Your task to perform on an android device: open a bookmark in the chrome app Image 0: 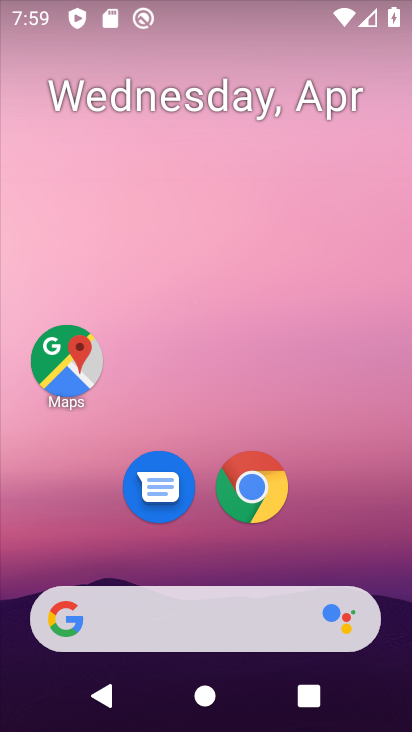
Step 0: click (271, 490)
Your task to perform on an android device: open a bookmark in the chrome app Image 1: 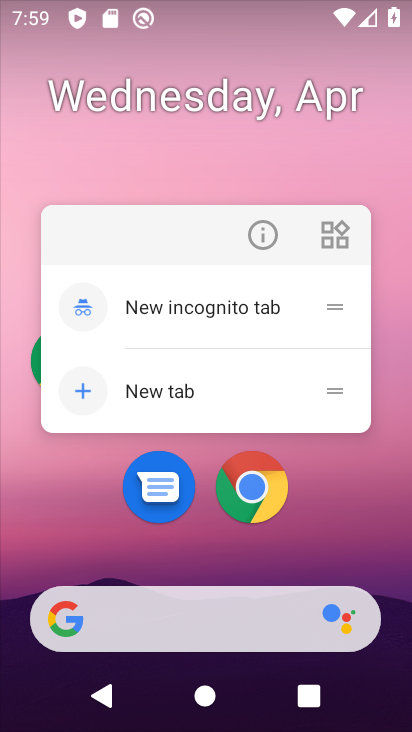
Step 1: click (260, 491)
Your task to perform on an android device: open a bookmark in the chrome app Image 2: 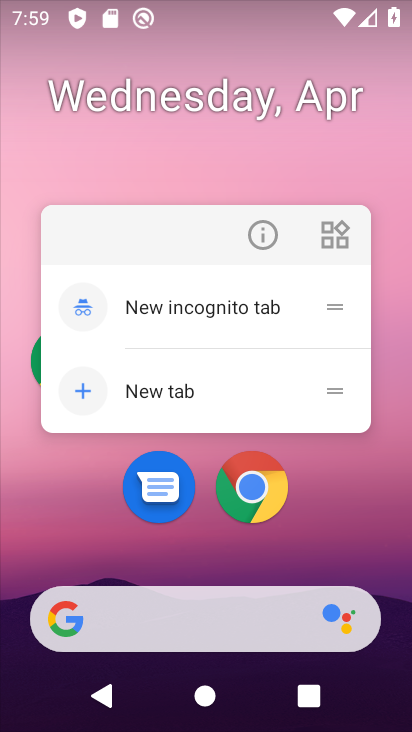
Step 2: click (252, 494)
Your task to perform on an android device: open a bookmark in the chrome app Image 3: 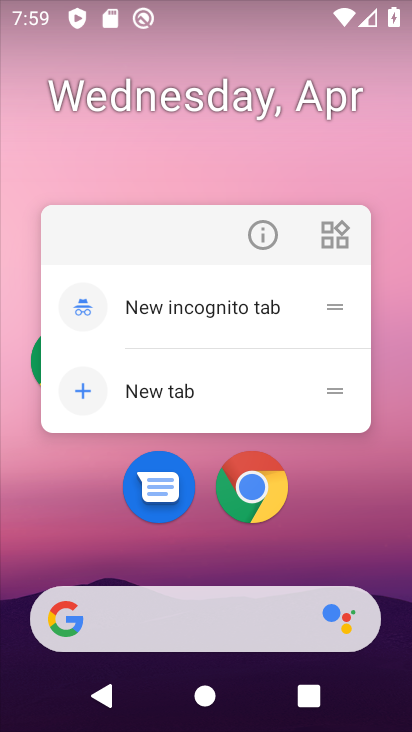
Step 3: drag from (305, 510) to (341, 73)
Your task to perform on an android device: open a bookmark in the chrome app Image 4: 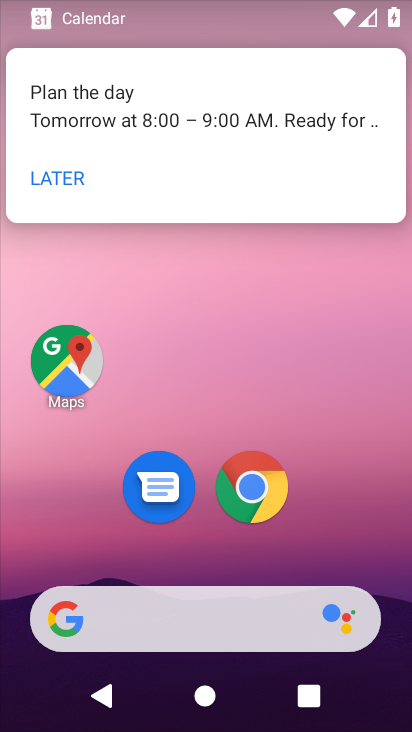
Step 4: drag from (301, 388) to (314, 103)
Your task to perform on an android device: open a bookmark in the chrome app Image 5: 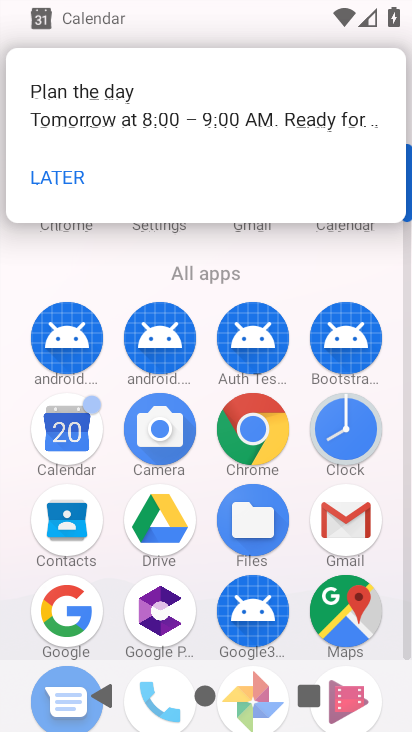
Step 5: click (244, 417)
Your task to perform on an android device: open a bookmark in the chrome app Image 6: 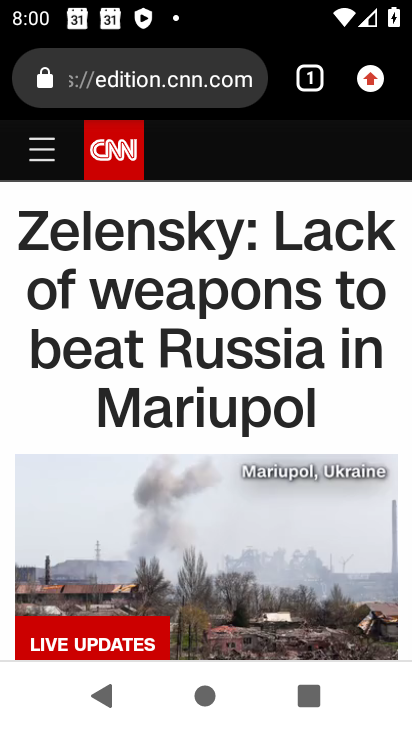
Step 6: drag from (397, 72) to (129, 395)
Your task to perform on an android device: open a bookmark in the chrome app Image 7: 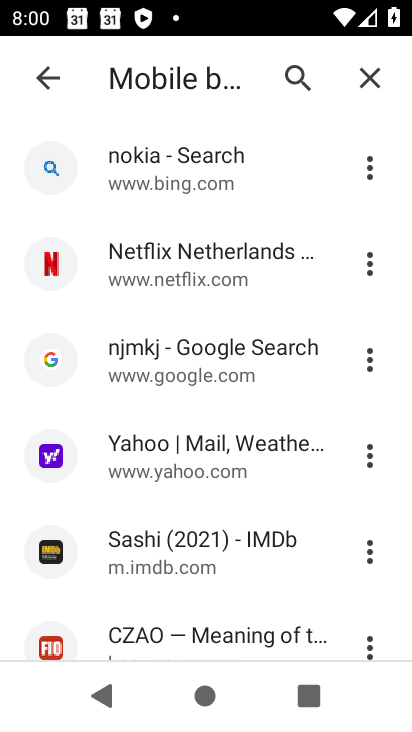
Step 7: click (166, 259)
Your task to perform on an android device: open a bookmark in the chrome app Image 8: 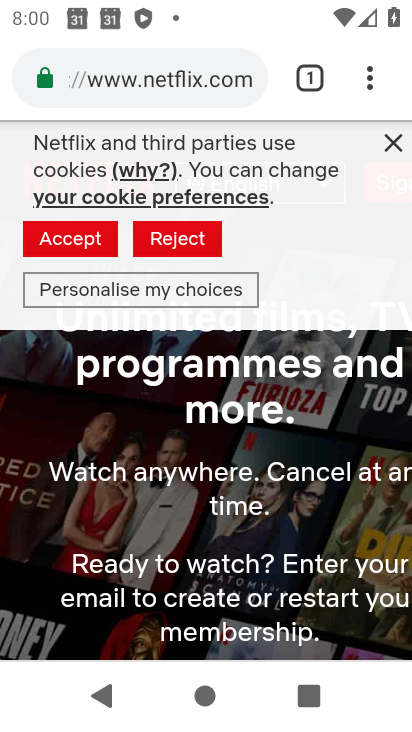
Step 8: task complete